Your task to perform on an android device: set the timer Image 0: 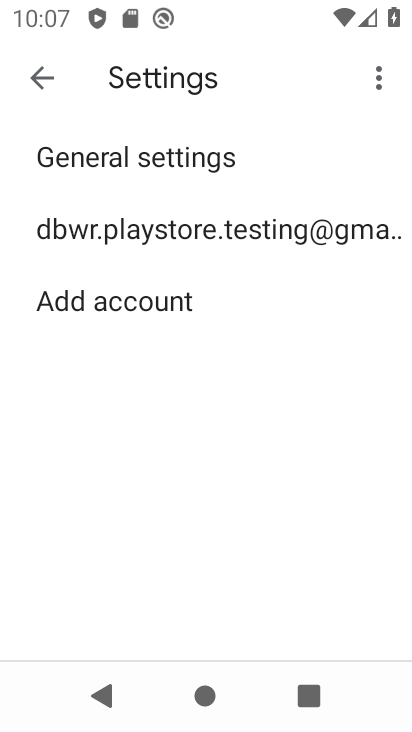
Step 0: press back button
Your task to perform on an android device: set the timer Image 1: 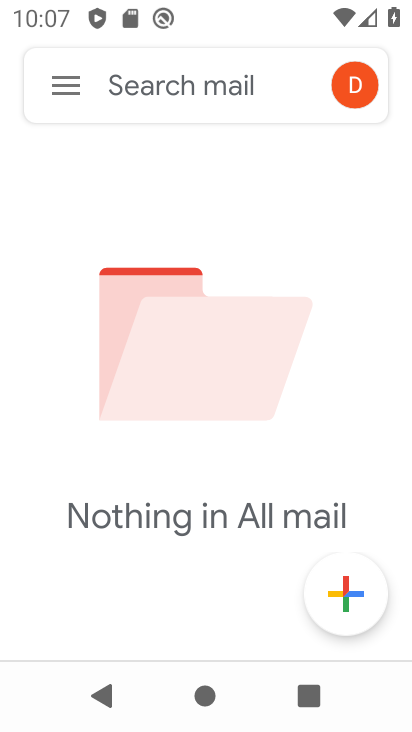
Step 1: press home button
Your task to perform on an android device: set the timer Image 2: 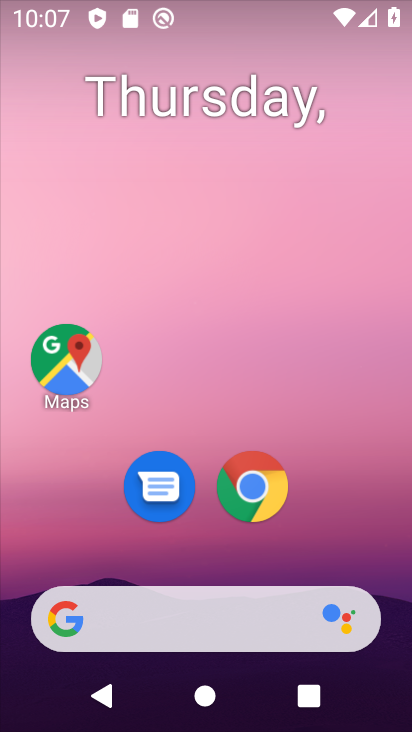
Step 2: drag from (242, 577) to (344, 82)
Your task to perform on an android device: set the timer Image 3: 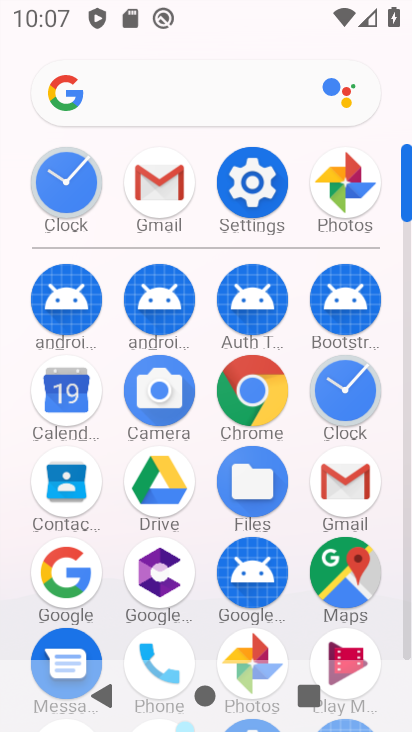
Step 3: click (344, 418)
Your task to perform on an android device: set the timer Image 4: 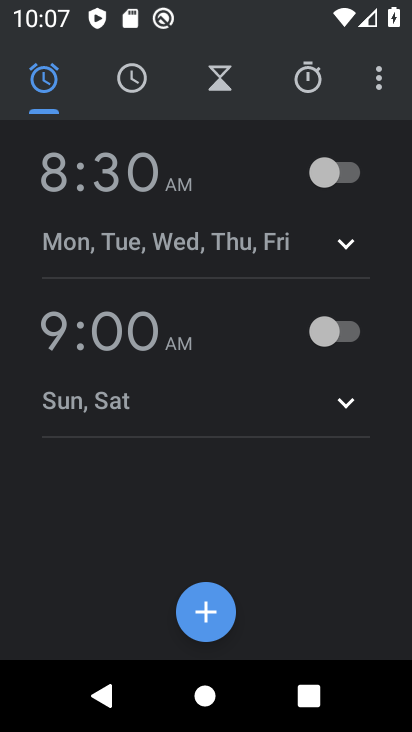
Step 4: click (234, 57)
Your task to perform on an android device: set the timer Image 5: 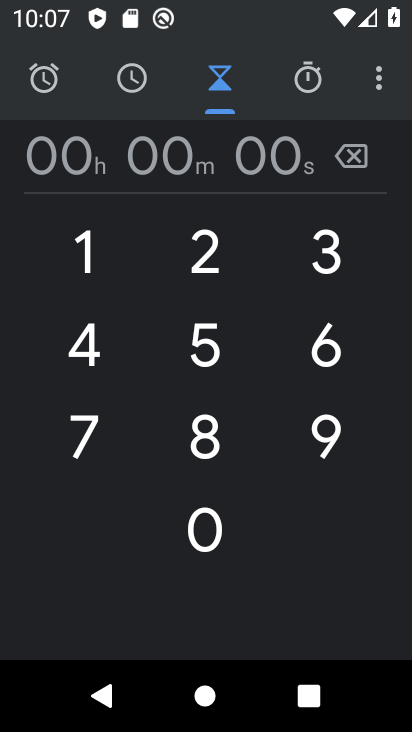
Step 5: click (206, 320)
Your task to perform on an android device: set the timer Image 6: 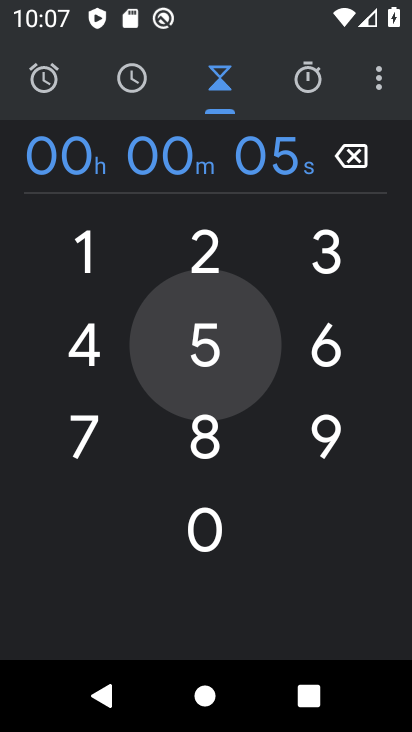
Step 6: click (313, 253)
Your task to perform on an android device: set the timer Image 7: 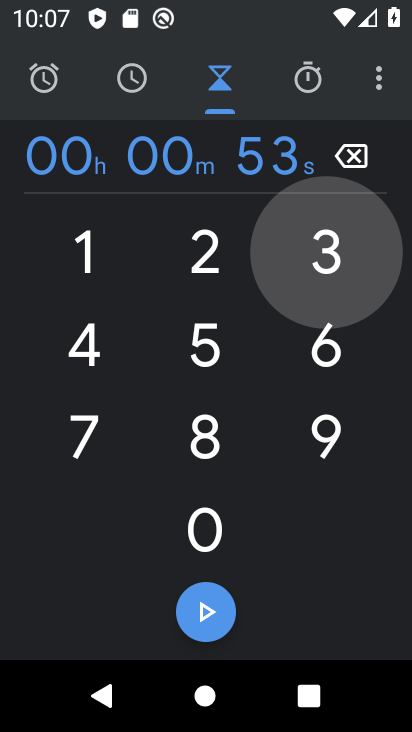
Step 7: click (218, 325)
Your task to perform on an android device: set the timer Image 8: 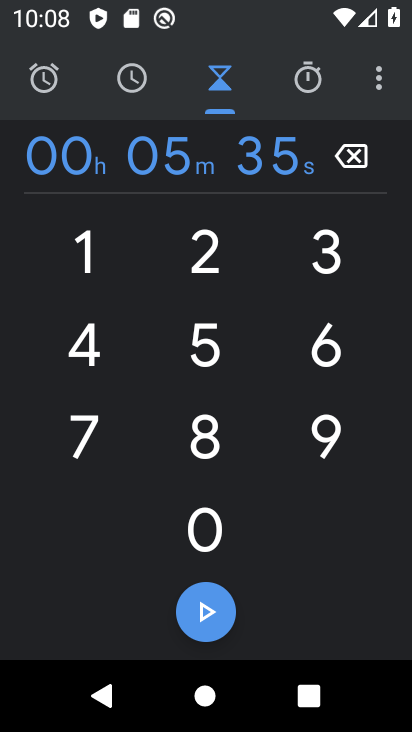
Step 8: task complete